Your task to perform on an android device: turn off javascript in the chrome app Image 0: 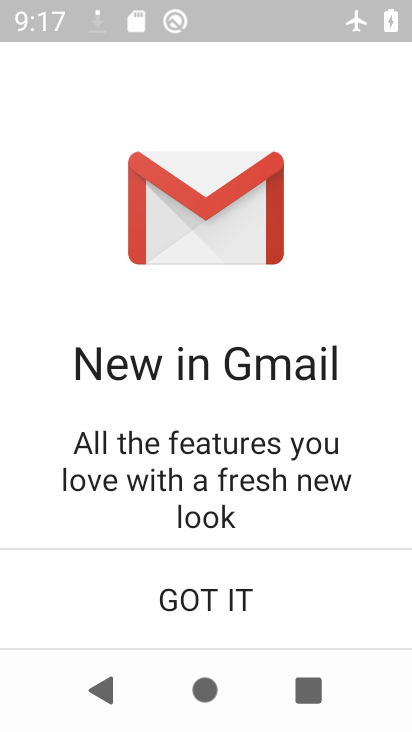
Step 0: press back button
Your task to perform on an android device: turn off javascript in the chrome app Image 1: 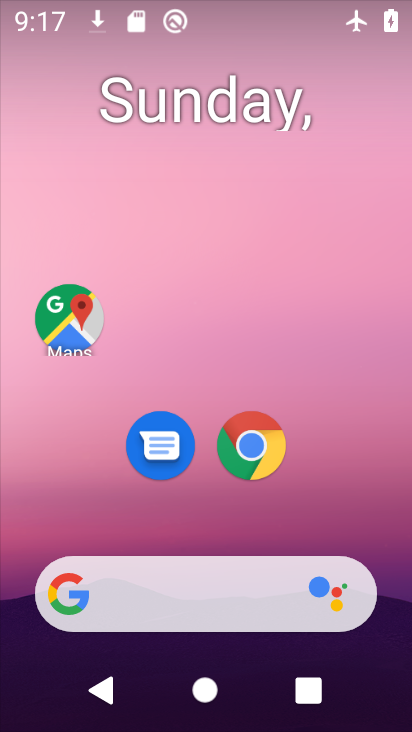
Step 1: drag from (320, 539) to (290, 5)
Your task to perform on an android device: turn off javascript in the chrome app Image 2: 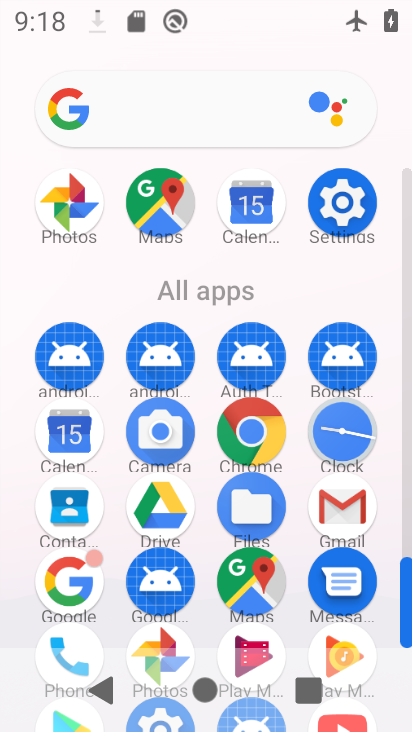
Step 2: drag from (18, 540) to (17, 239)
Your task to perform on an android device: turn off javascript in the chrome app Image 3: 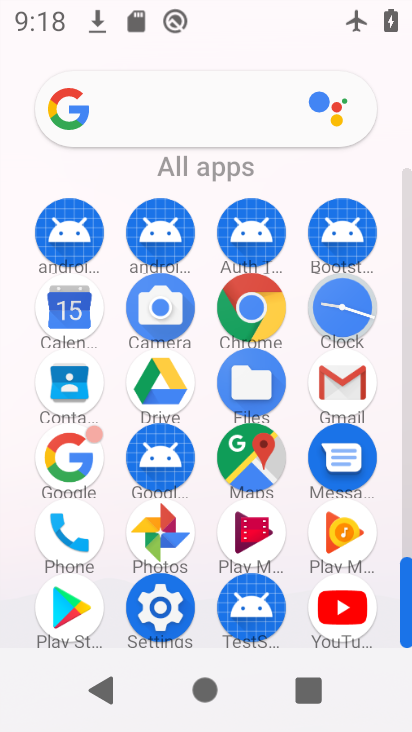
Step 3: click (250, 306)
Your task to perform on an android device: turn off javascript in the chrome app Image 4: 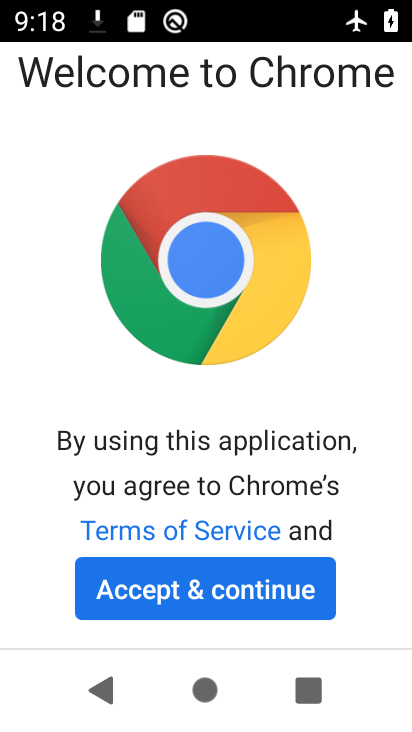
Step 4: click (250, 580)
Your task to perform on an android device: turn off javascript in the chrome app Image 5: 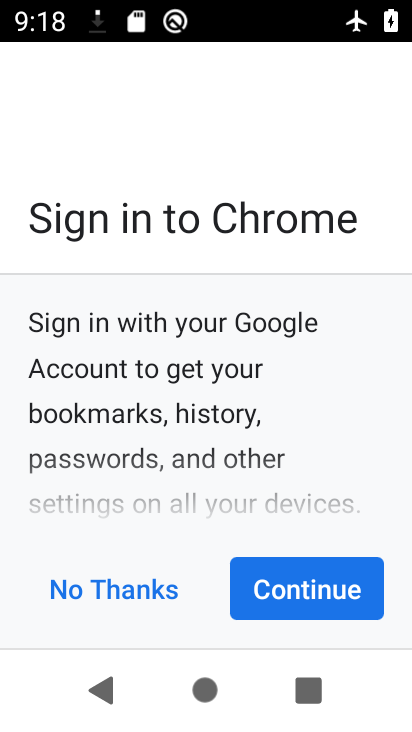
Step 5: click (249, 578)
Your task to perform on an android device: turn off javascript in the chrome app Image 6: 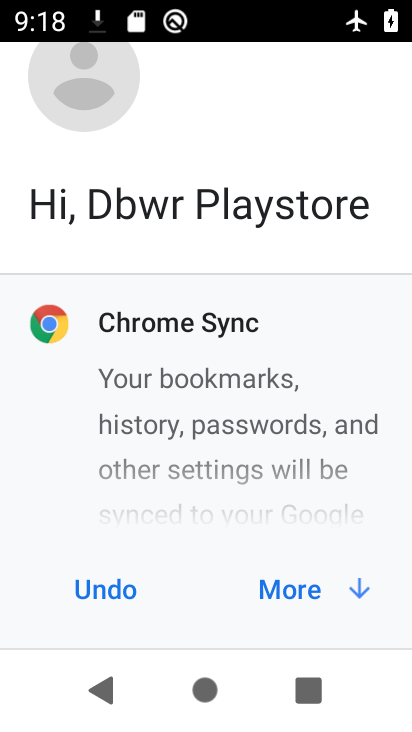
Step 6: click (292, 588)
Your task to perform on an android device: turn off javascript in the chrome app Image 7: 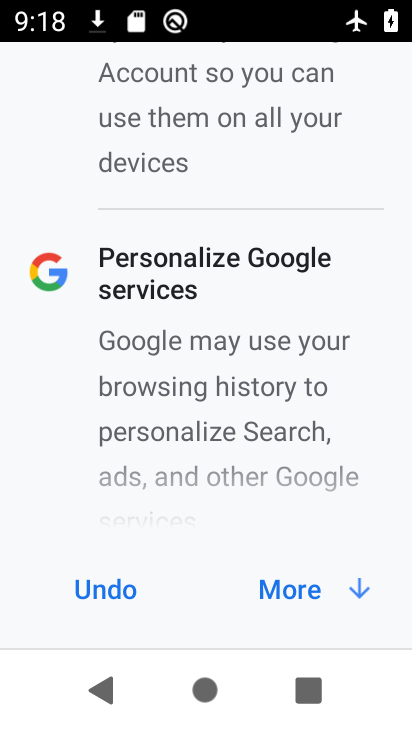
Step 7: click (293, 594)
Your task to perform on an android device: turn off javascript in the chrome app Image 8: 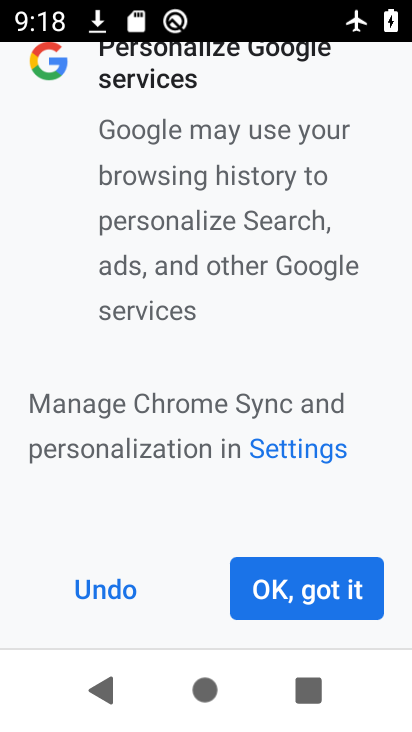
Step 8: click (293, 594)
Your task to perform on an android device: turn off javascript in the chrome app Image 9: 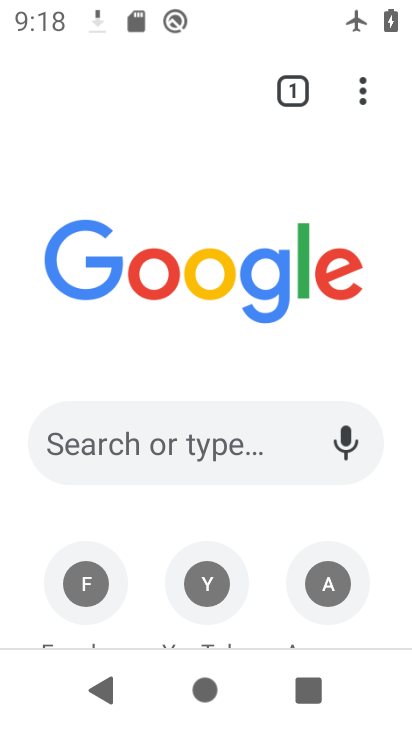
Step 9: drag from (365, 85) to (123, 465)
Your task to perform on an android device: turn off javascript in the chrome app Image 10: 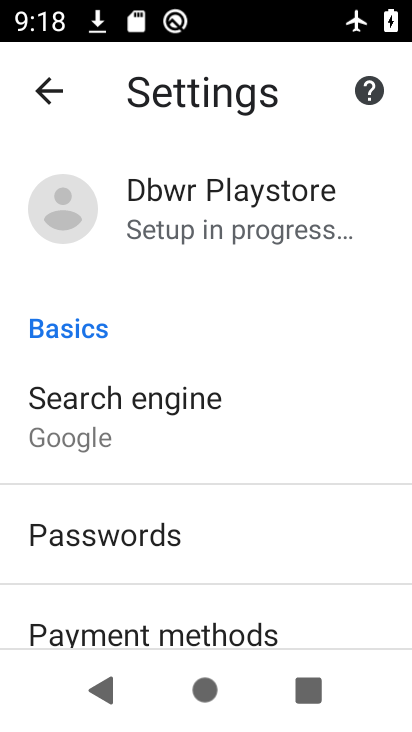
Step 10: drag from (211, 569) to (219, 212)
Your task to perform on an android device: turn off javascript in the chrome app Image 11: 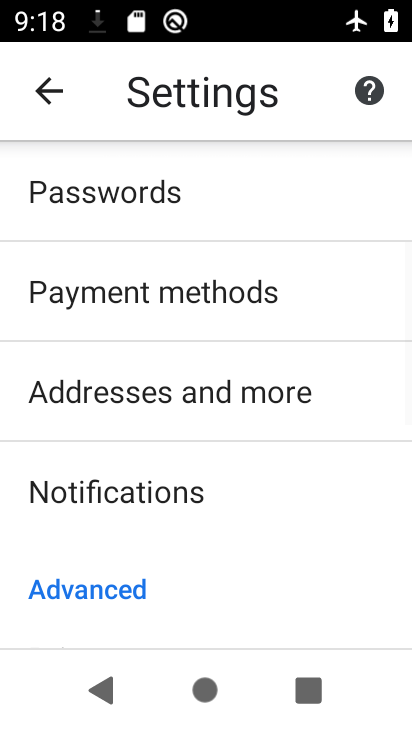
Step 11: drag from (266, 557) to (253, 213)
Your task to perform on an android device: turn off javascript in the chrome app Image 12: 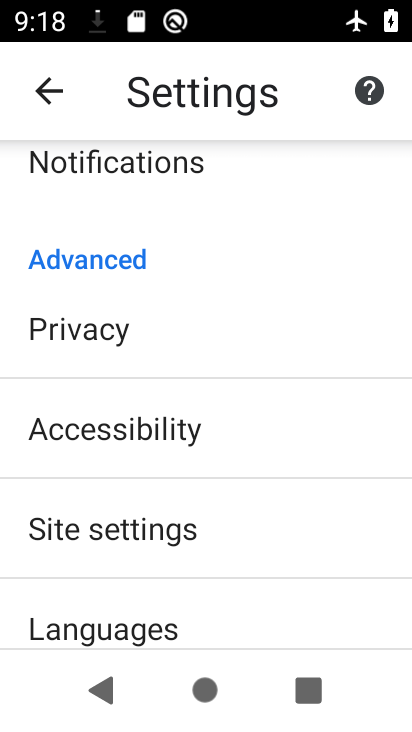
Step 12: click (149, 531)
Your task to perform on an android device: turn off javascript in the chrome app Image 13: 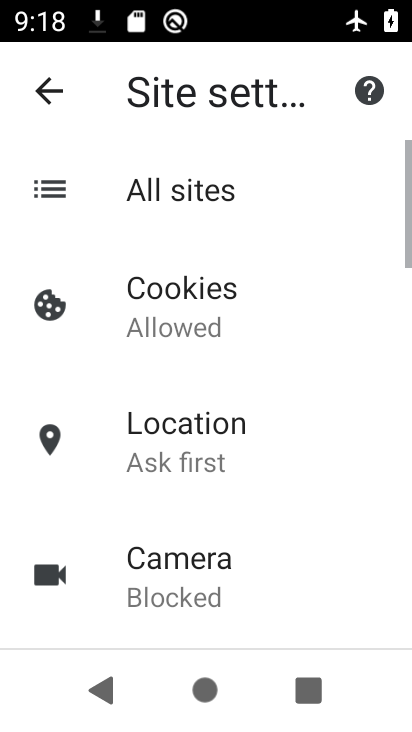
Step 13: drag from (273, 575) to (312, 215)
Your task to perform on an android device: turn off javascript in the chrome app Image 14: 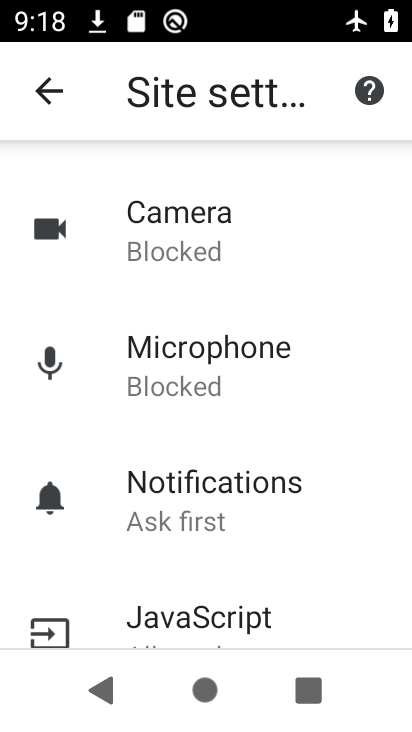
Step 14: drag from (240, 593) to (258, 250)
Your task to perform on an android device: turn off javascript in the chrome app Image 15: 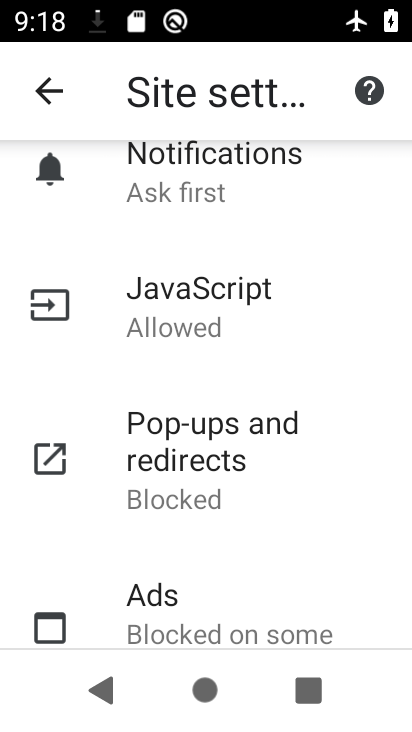
Step 15: click (236, 291)
Your task to perform on an android device: turn off javascript in the chrome app Image 16: 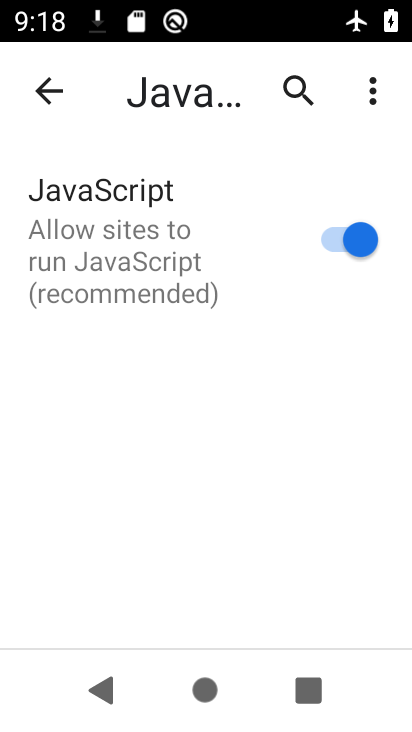
Step 16: click (348, 236)
Your task to perform on an android device: turn off javascript in the chrome app Image 17: 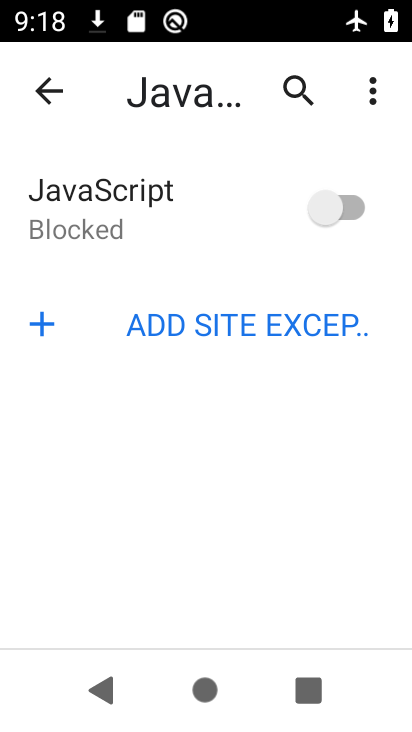
Step 17: task complete